Your task to perform on an android device: check out phone information Image 0: 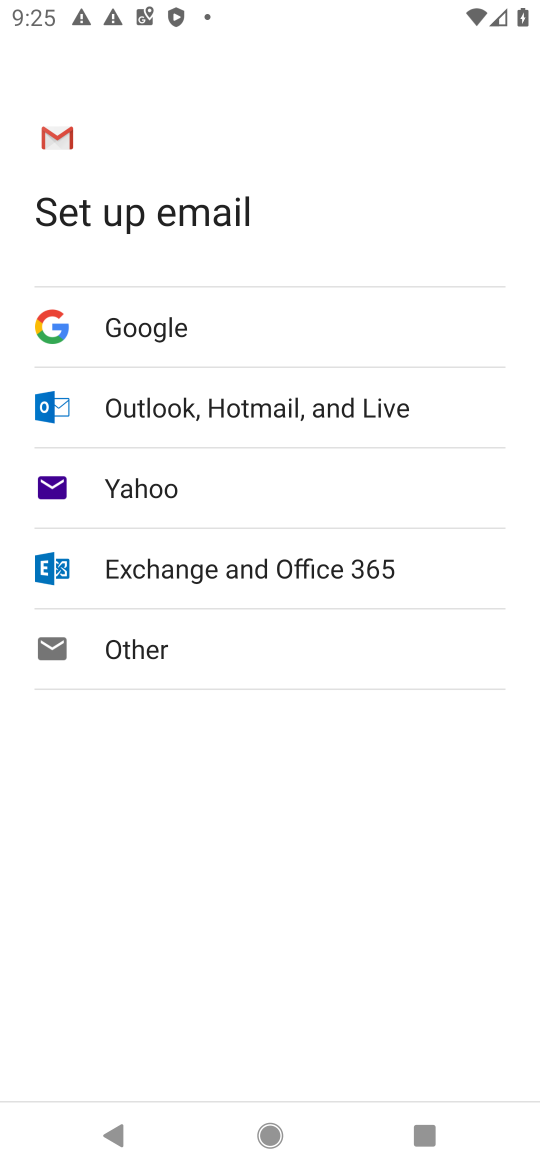
Step 0: press home button
Your task to perform on an android device: check out phone information Image 1: 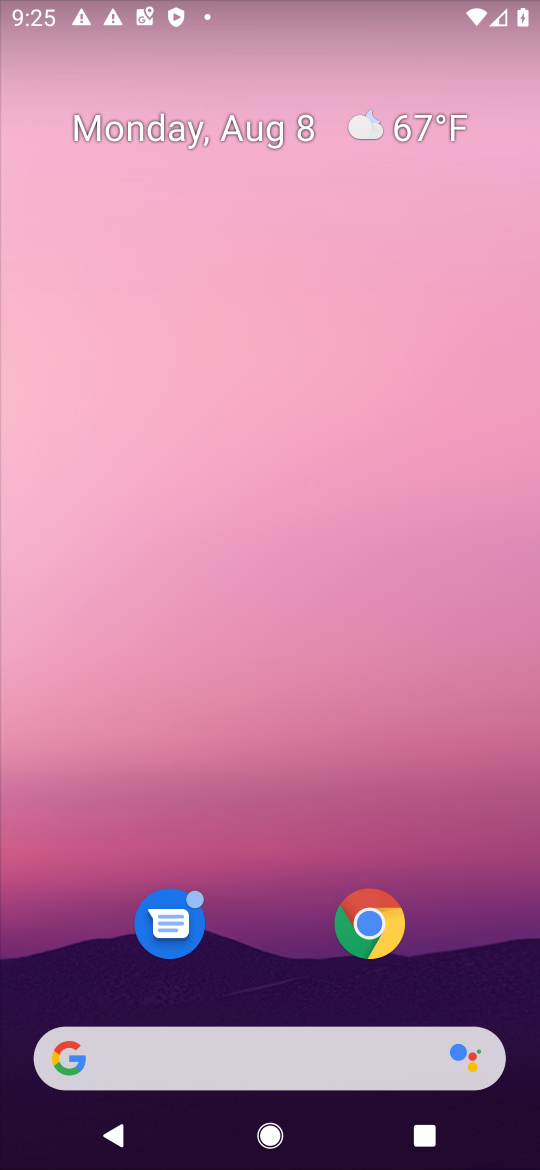
Step 1: drag from (68, 1135) to (363, 188)
Your task to perform on an android device: check out phone information Image 2: 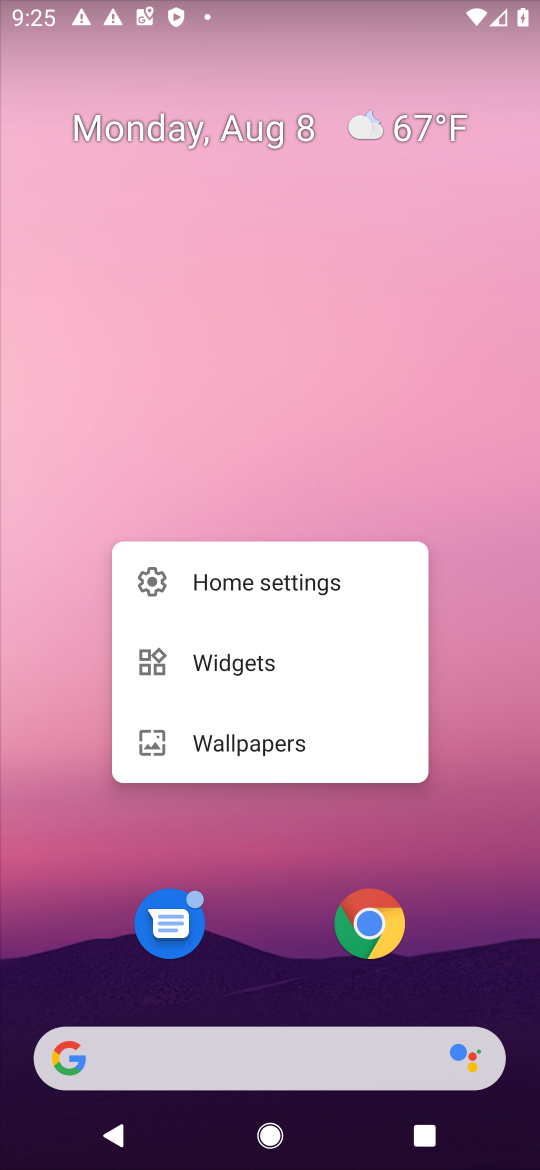
Step 2: drag from (33, 1108) to (349, 302)
Your task to perform on an android device: check out phone information Image 3: 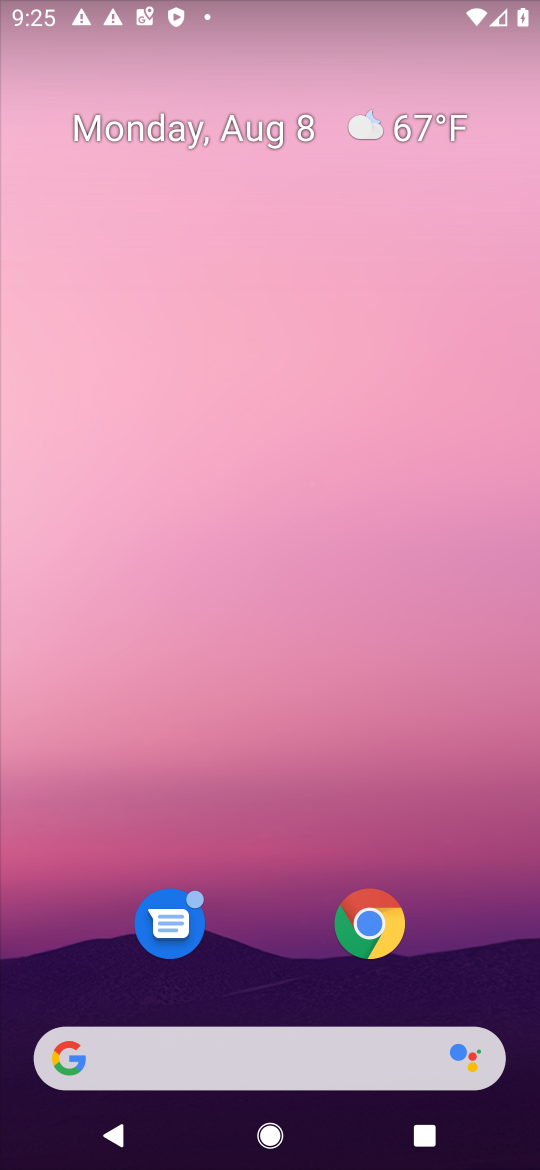
Step 3: click (44, 1117)
Your task to perform on an android device: check out phone information Image 4: 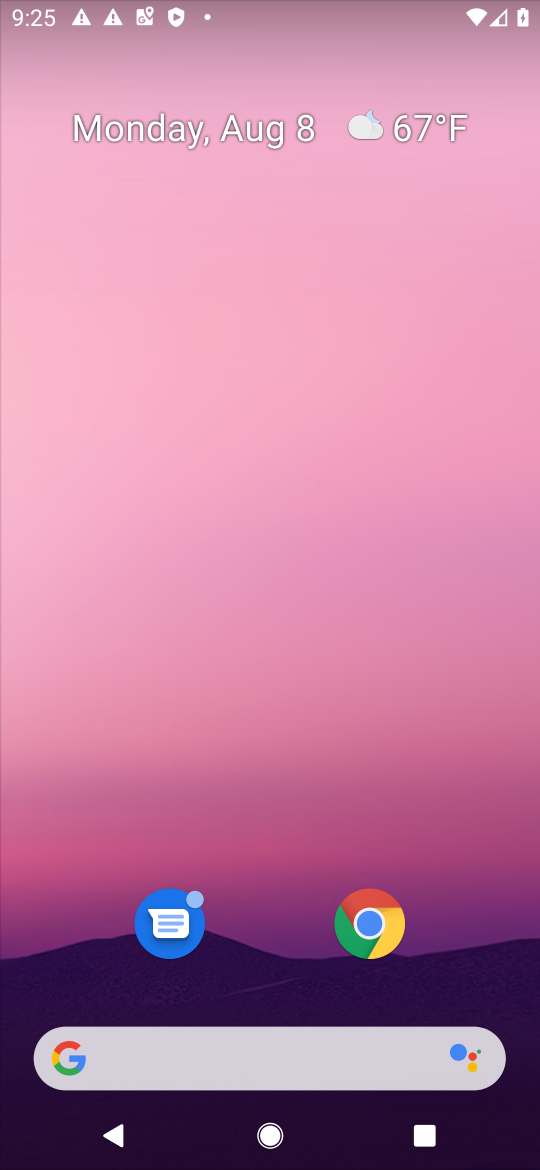
Step 4: drag from (44, 1117) to (345, 252)
Your task to perform on an android device: check out phone information Image 5: 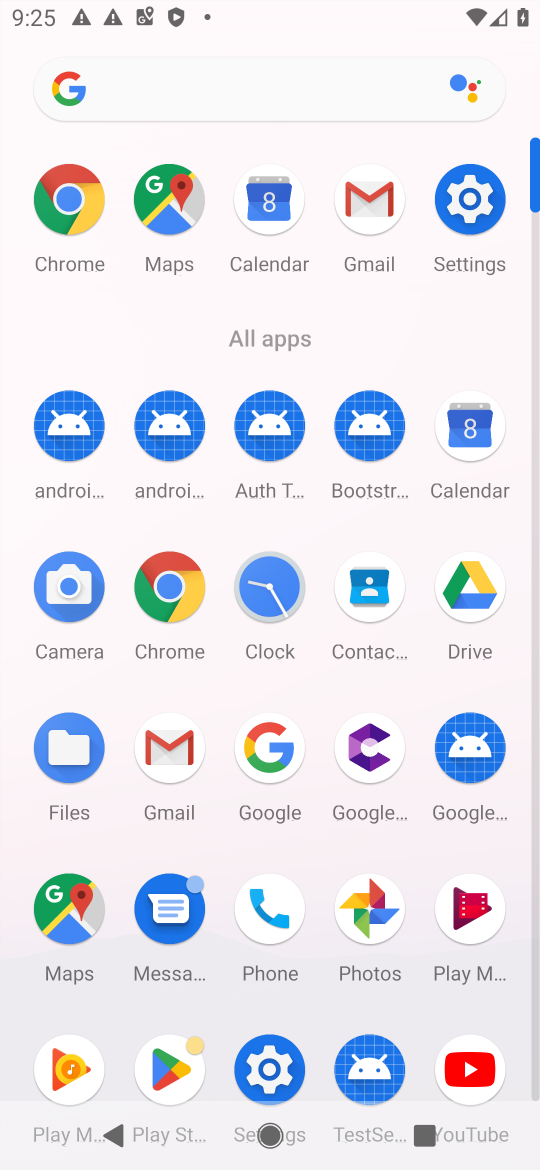
Step 5: click (273, 911)
Your task to perform on an android device: check out phone information Image 6: 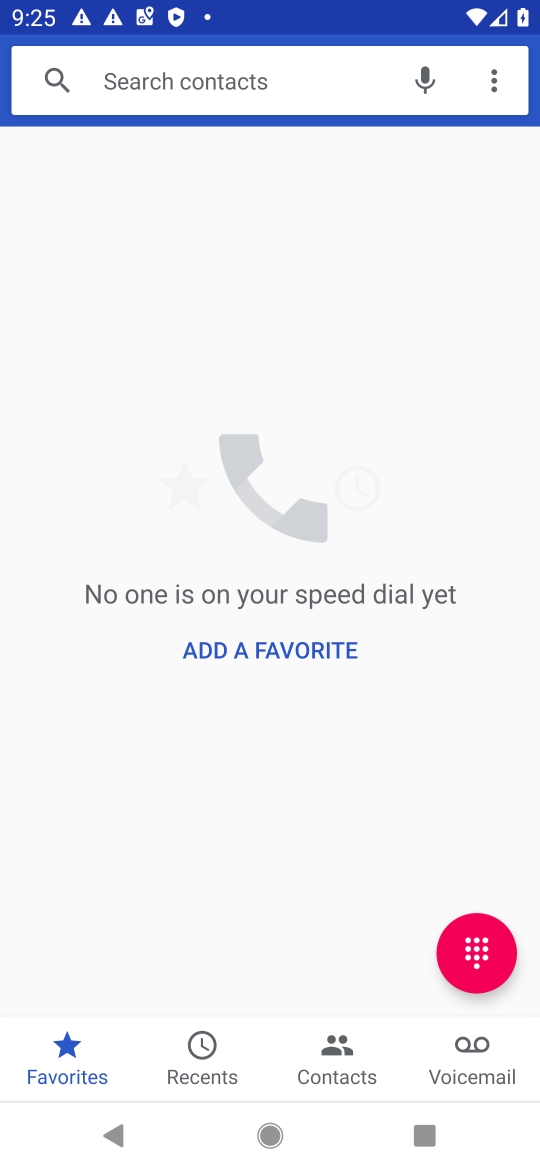
Step 6: click (185, 1070)
Your task to perform on an android device: check out phone information Image 7: 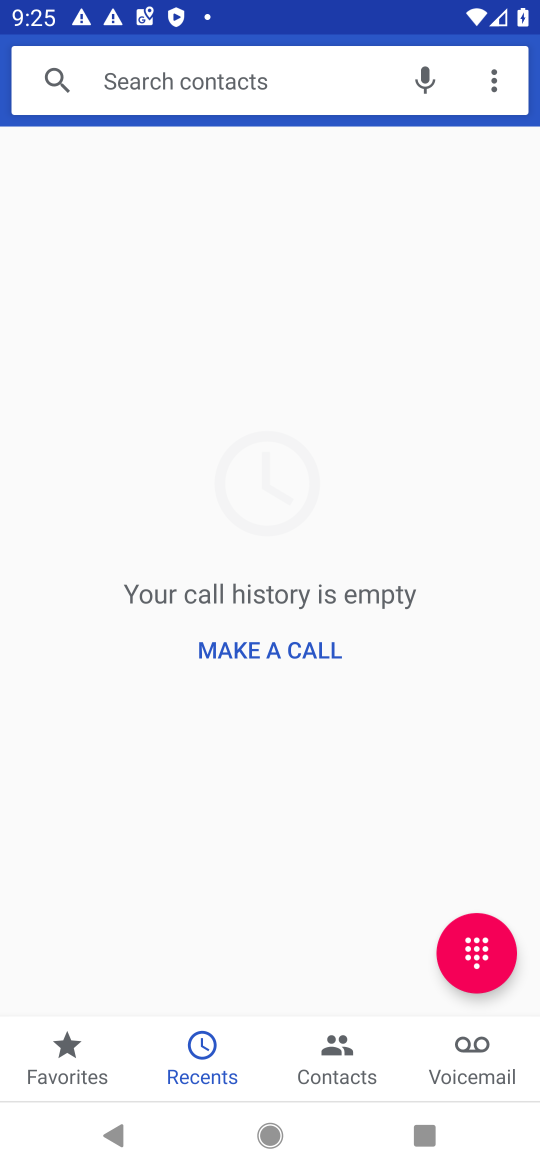
Step 7: task complete